Your task to perform on an android device: turn off priority inbox in the gmail app Image 0: 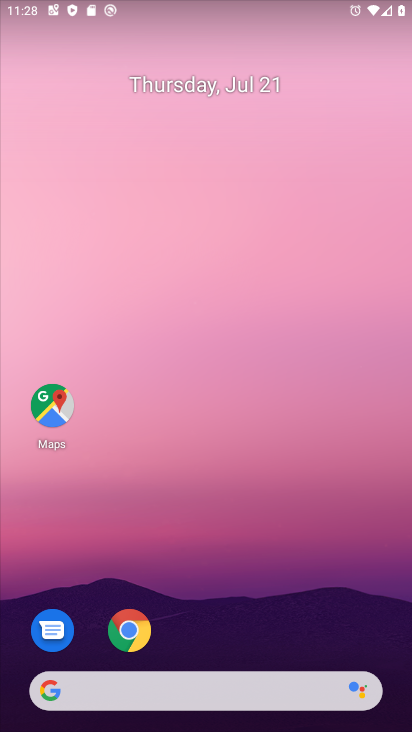
Step 0: drag from (183, 662) to (210, 155)
Your task to perform on an android device: turn off priority inbox in the gmail app Image 1: 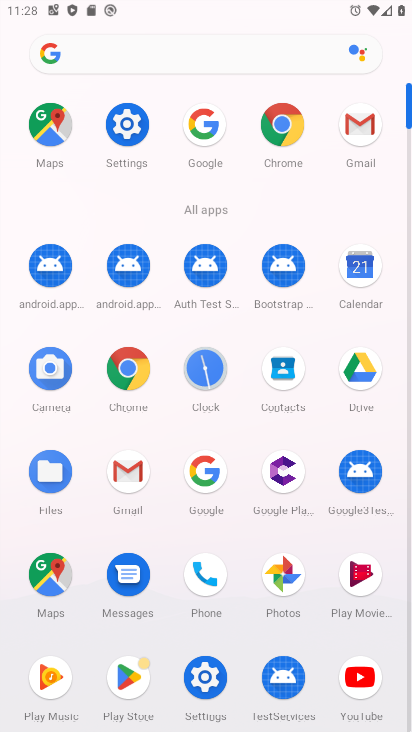
Step 1: click (121, 483)
Your task to perform on an android device: turn off priority inbox in the gmail app Image 2: 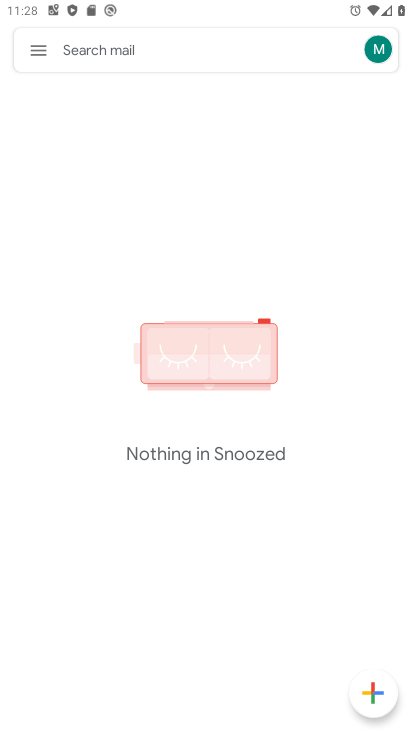
Step 2: click (41, 43)
Your task to perform on an android device: turn off priority inbox in the gmail app Image 3: 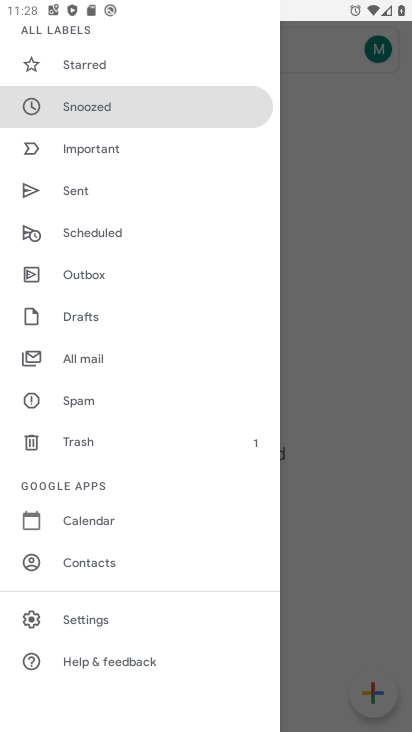
Step 3: click (103, 623)
Your task to perform on an android device: turn off priority inbox in the gmail app Image 4: 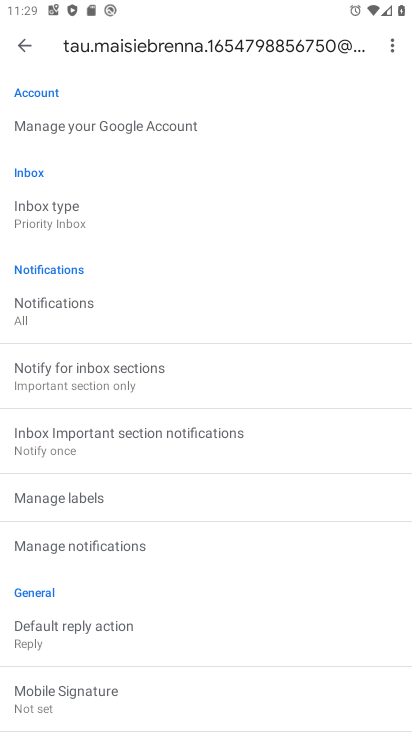
Step 4: click (72, 219)
Your task to perform on an android device: turn off priority inbox in the gmail app Image 5: 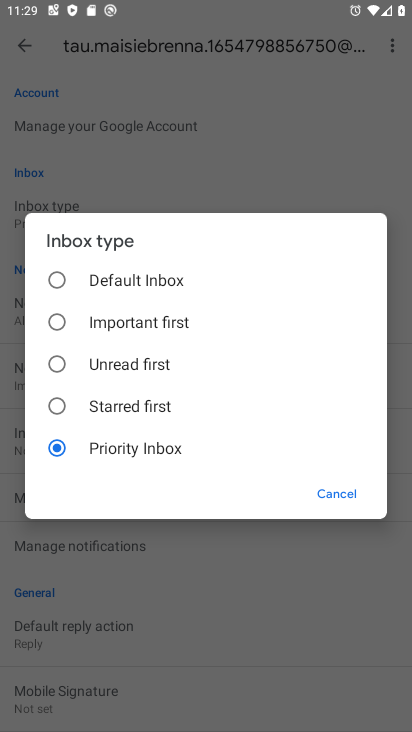
Step 5: click (115, 281)
Your task to perform on an android device: turn off priority inbox in the gmail app Image 6: 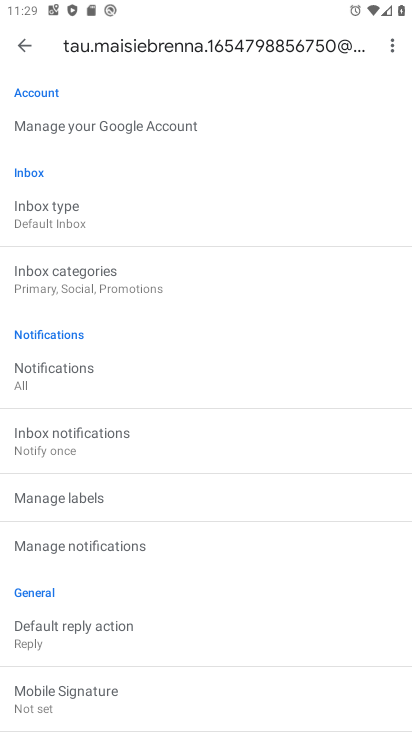
Step 6: task complete